Your task to perform on an android device: set the timer Image 0: 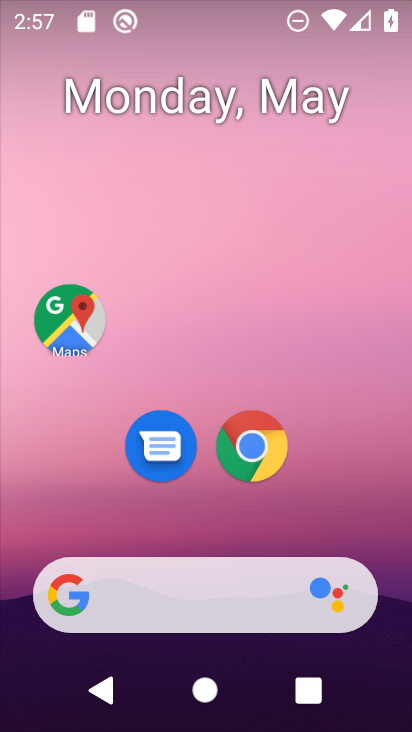
Step 0: drag from (212, 525) to (195, 98)
Your task to perform on an android device: set the timer Image 1: 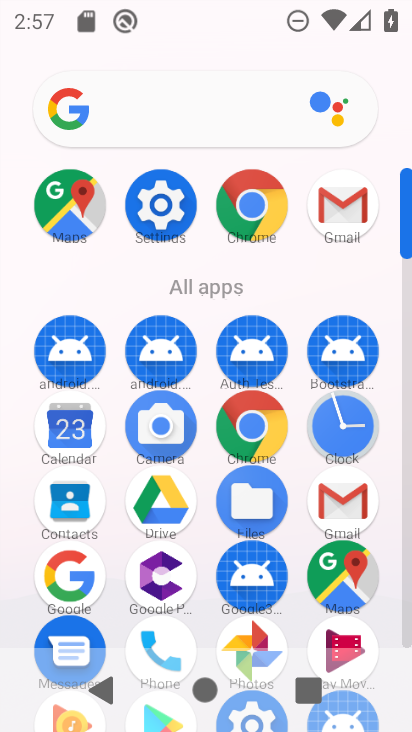
Step 1: click (309, 426)
Your task to perform on an android device: set the timer Image 2: 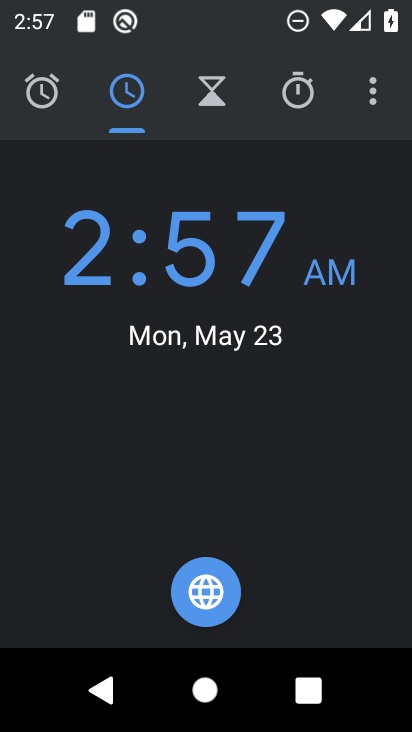
Step 2: click (222, 89)
Your task to perform on an android device: set the timer Image 3: 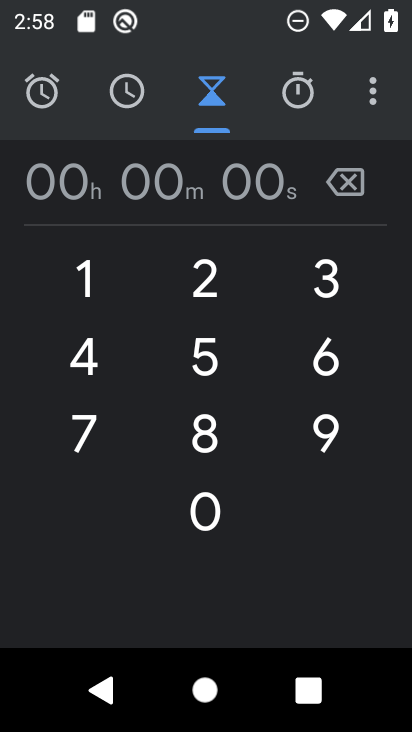
Step 3: task complete